Your task to perform on an android device: stop showing notifications on the lock screen Image 0: 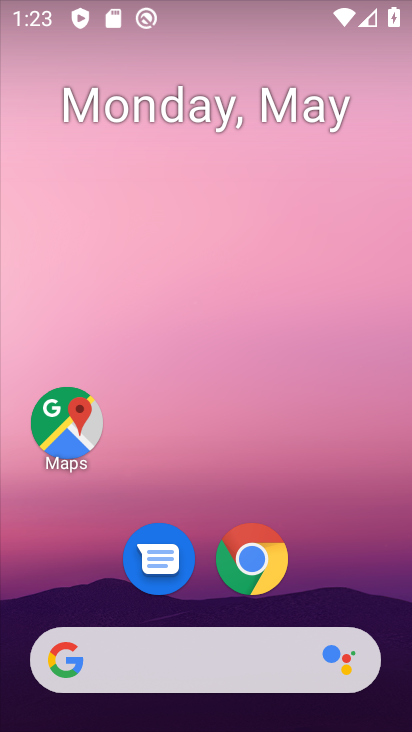
Step 0: drag from (381, 544) to (326, 0)
Your task to perform on an android device: stop showing notifications on the lock screen Image 1: 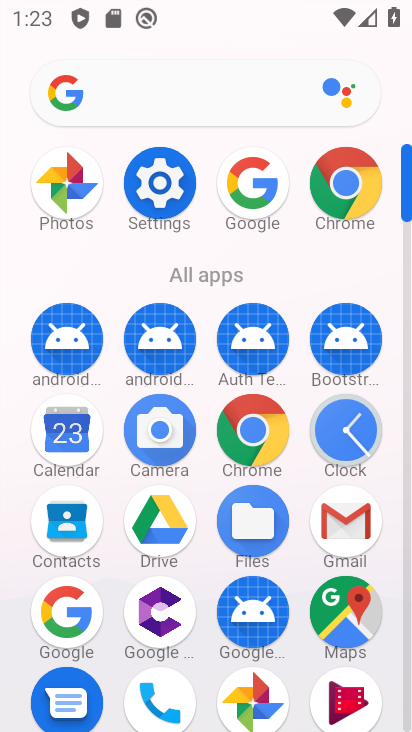
Step 1: click (158, 193)
Your task to perform on an android device: stop showing notifications on the lock screen Image 2: 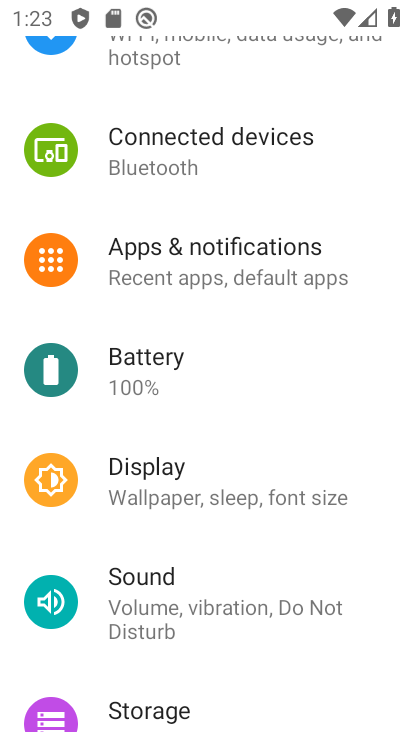
Step 2: drag from (263, 209) to (233, 670)
Your task to perform on an android device: stop showing notifications on the lock screen Image 3: 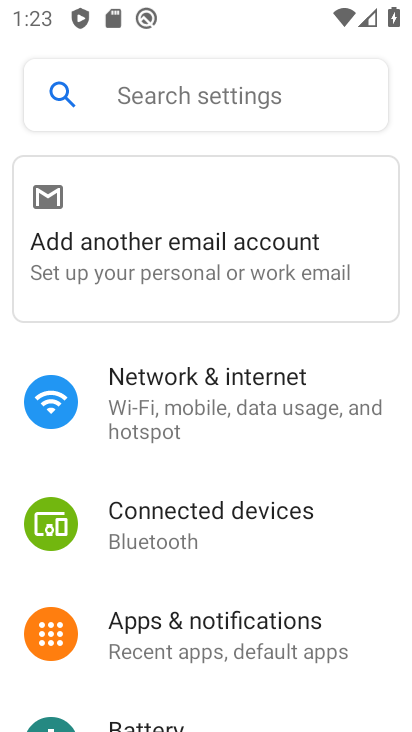
Step 3: click (224, 630)
Your task to perform on an android device: stop showing notifications on the lock screen Image 4: 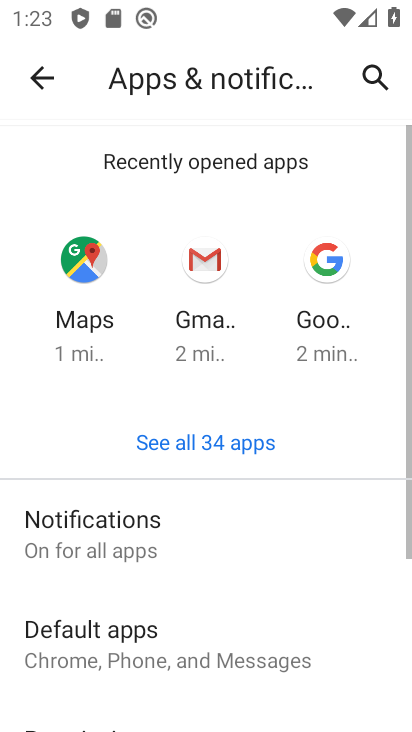
Step 4: drag from (224, 627) to (252, 36)
Your task to perform on an android device: stop showing notifications on the lock screen Image 5: 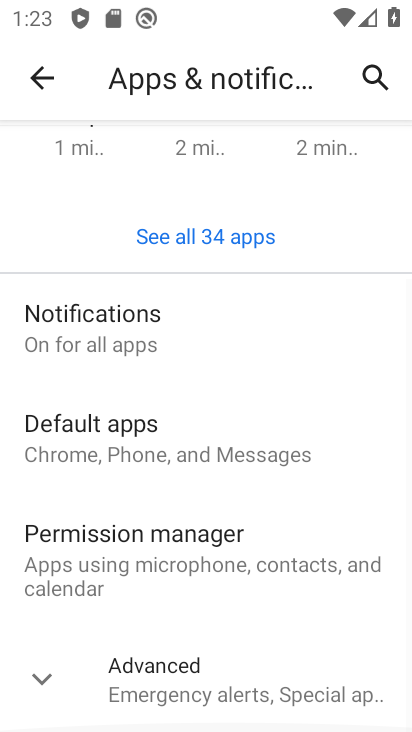
Step 5: click (200, 676)
Your task to perform on an android device: stop showing notifications on the lock screen Image 6: 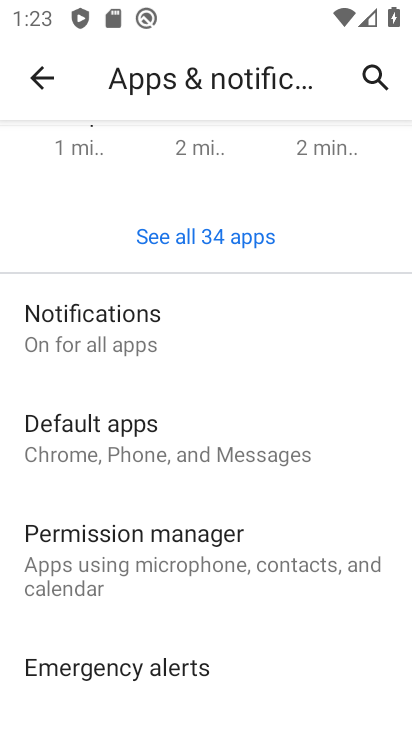
Step 6: drag from (260, 645) to (281, 475)
Your task to perform on an android device: stop showing notifications on the lock screen Image 7: 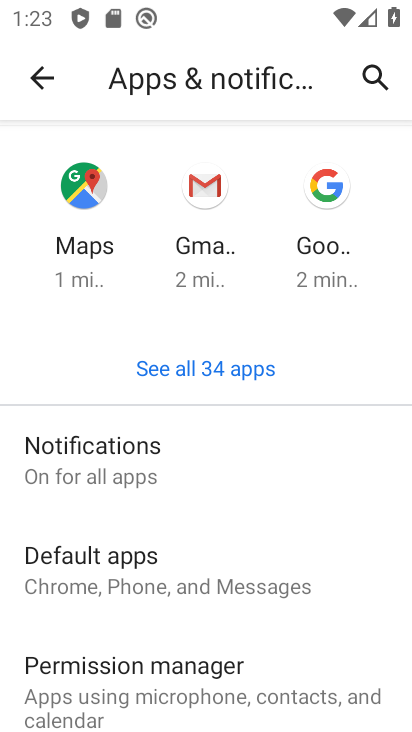
Step 7: click (67, 487)
Your task to perform on an android device: stop showing notifications on the lock screen Image 8: 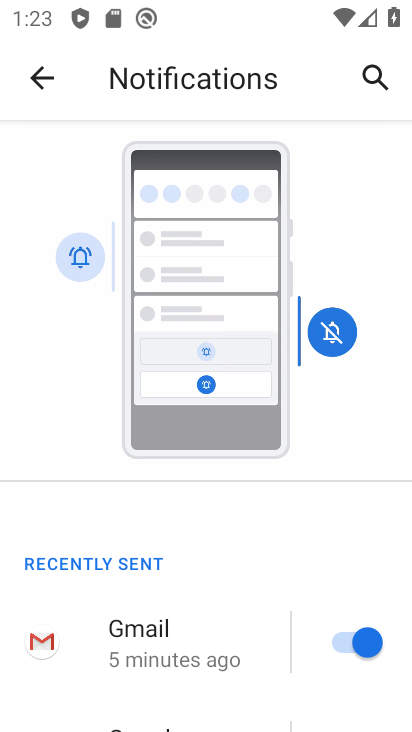
Step 8: click (240, 239)
Your task to perform on an android device: stop showing notifications on the lock screen Image 9: 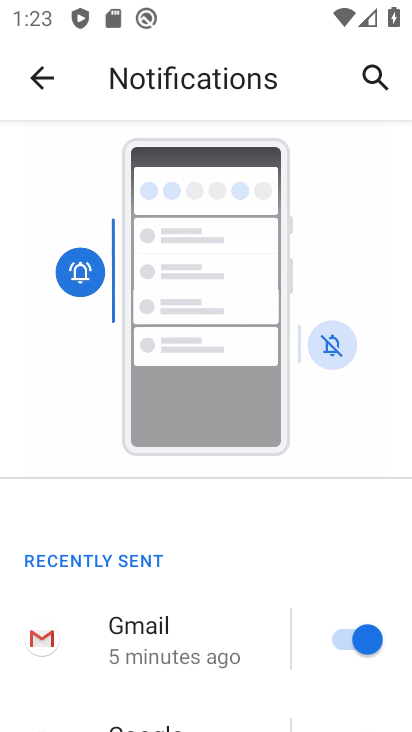
Step 9: drag from (218, 602) to (263, 125)
Your task to perform on an android device: stop showing notifications on the lock screen Image 10: 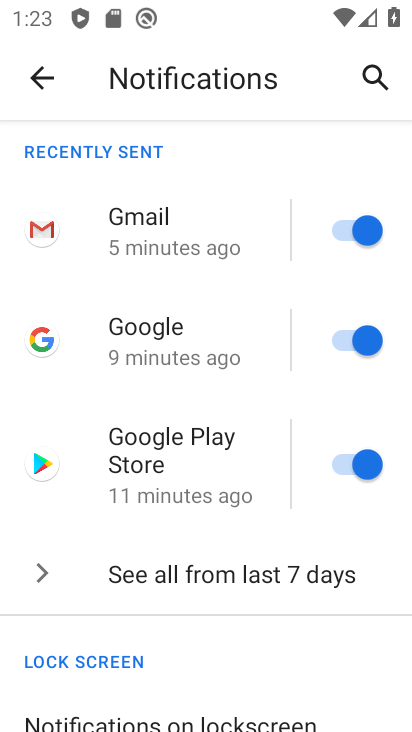
Step 10: drag from (173, 651) to (245, 240)
Your task to perform on an android device: stop showing notifications on the lock screen Image 11: 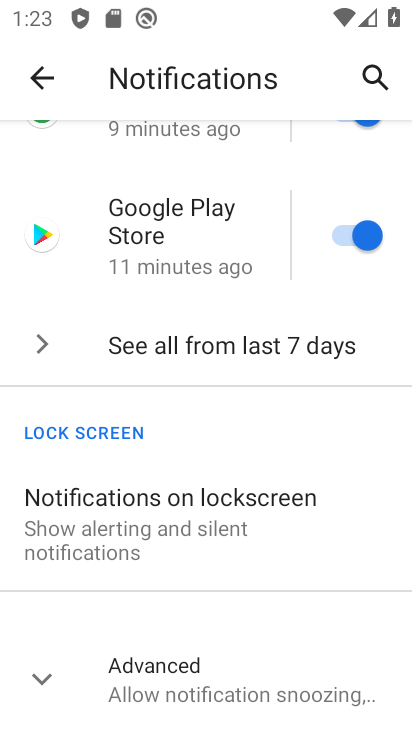
Step 11: click (205, 525)
Your task to perform on an android device: stop showing notifications on the lock screen Image 12: 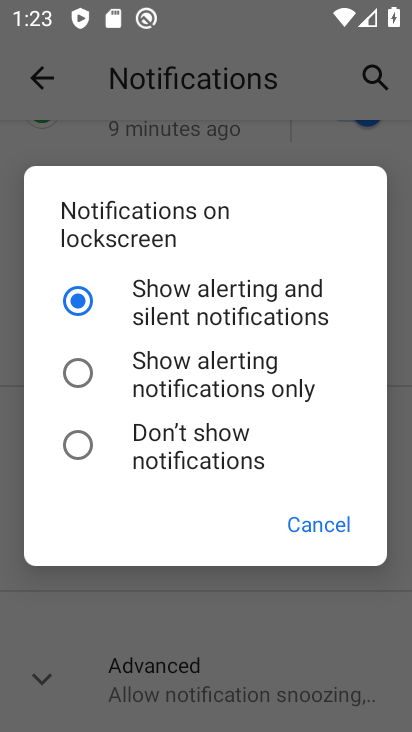
Step 12: click (185, 451)
Your task to perform on an android device: stop showing notifications on the lock screen Image 13: 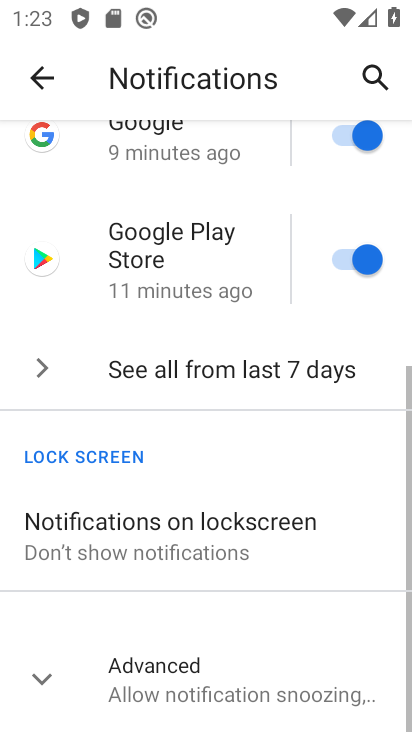
Step 13: task complete